Your task to perform on an android device: Open Youtube and go to "Your channel" Image 0: 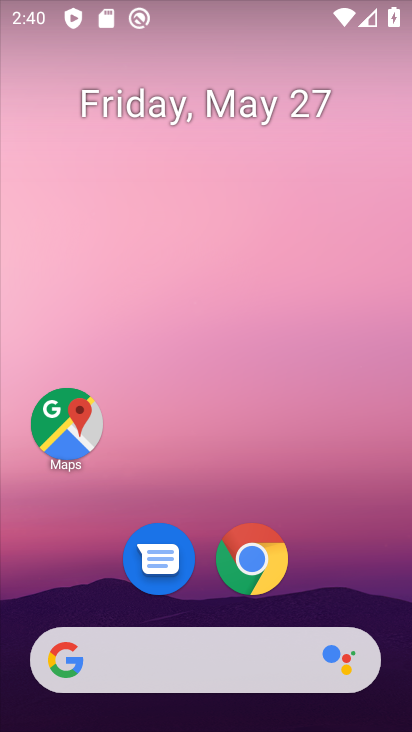
Step 0: click (124, 408)
Your task to perform on an android device: Open Youtube and go to "Your channel" Image 1: 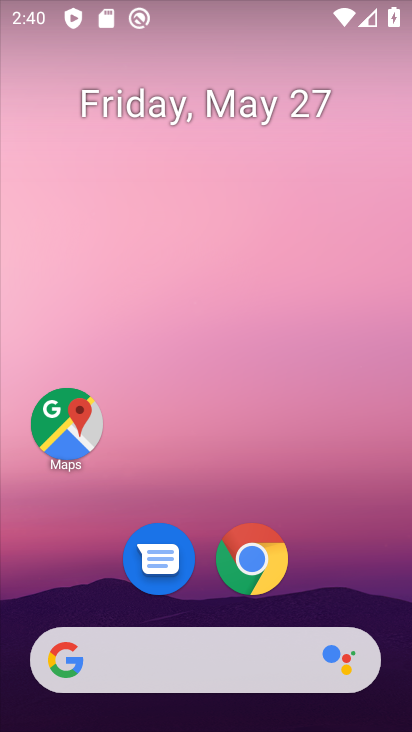
Step 1: click (124, 408)
Your task to perform on an android device: Open Youtube and go to "Your channel" Image 2: 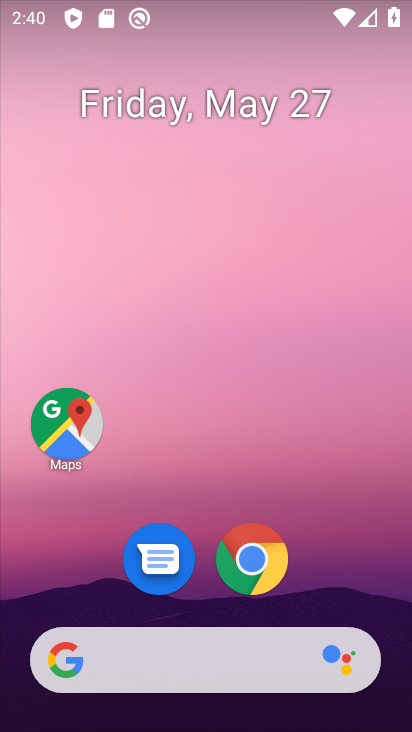
Step 2: drag from (300, 584) to (222, 38)
Your task to perform on an android device: Open Youtube and go to "Your channel" Image 3: 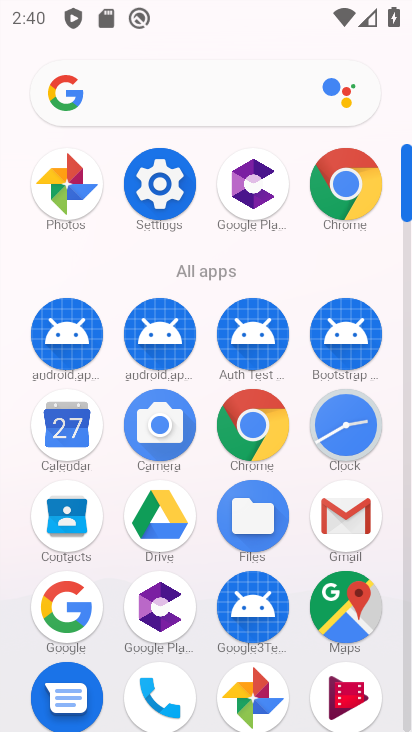
Step 3: drag from (204, 599) to (111, 106)
Your task to perform on an android device: Open Youtube and go to "Your channel" Image 4: 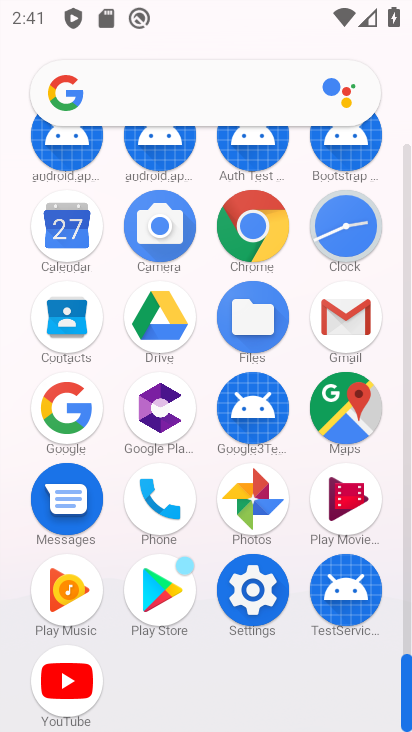
Step 4: click (86, 654)
Your task to perform on an android device: Open Youtube and go to "Your channel" Image 5: 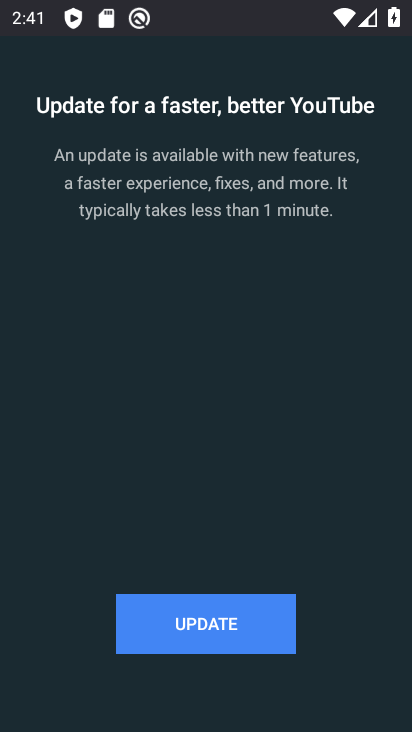
Step 5: click (270, 647)
Your task to perform on an android device: Open Youtube and go to "Your channel" Image 6: 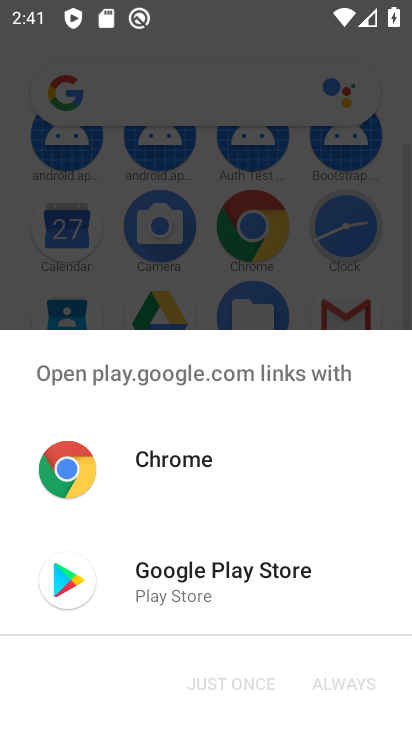
Step 6: click (184, 561)
Your task to perform on an android device: Open Youtube and go to "Your channel" Image 7: 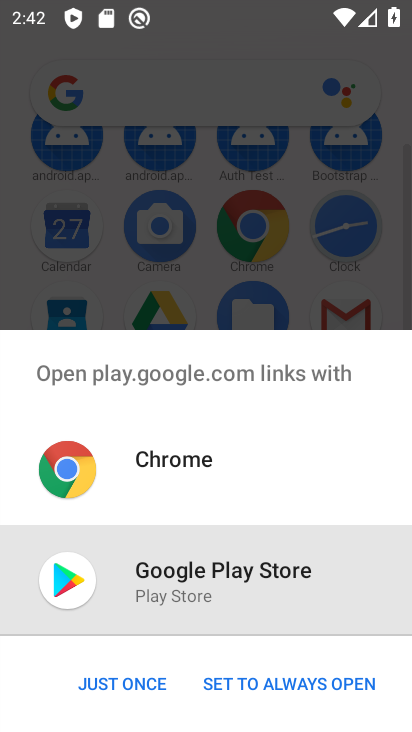
Step 7: task complete